Your task to perform on an android device: Toggle the flashlight Image 0: 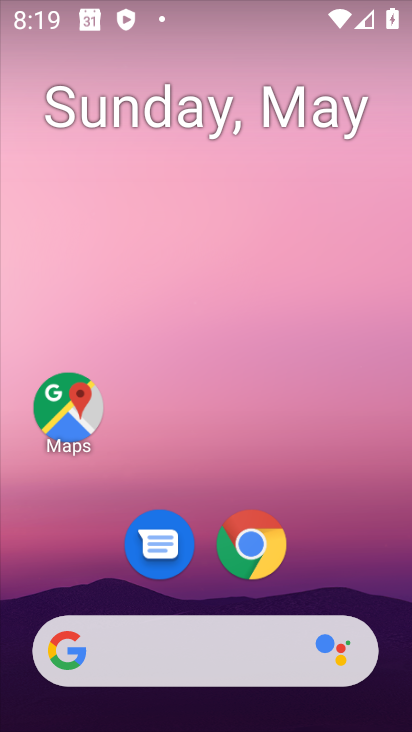
Step 0: drag from (355, 414) to (346, 74)
Your task to perform on an android device: Toggle the flashlight Image 1: 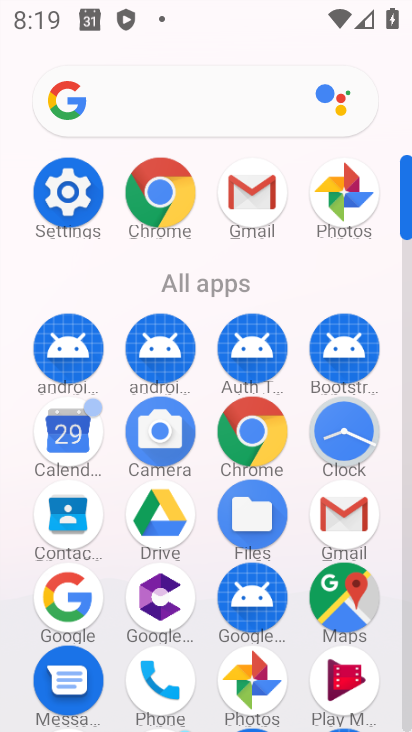
Step 1: click (57, 196)
Your task to perform on an android device: Toggle the flashlight Image 2: 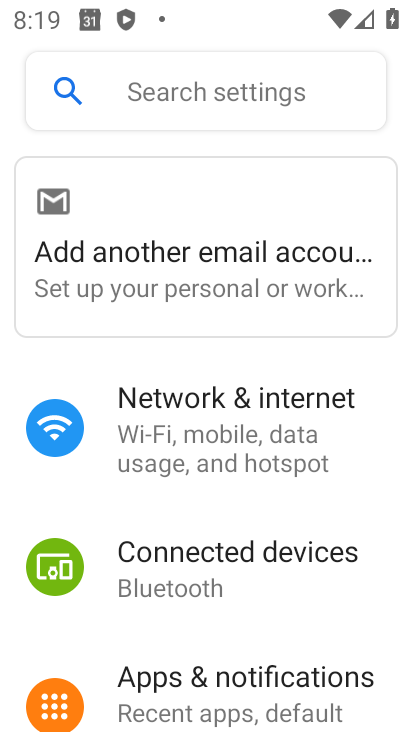
Step 2: task complete